Your task to perform on an android device: Open the calendar and show me this week's events? Image 0: 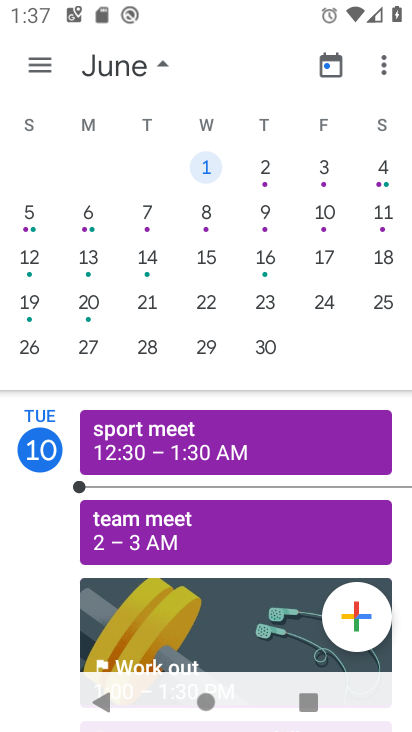
Step 0: press home button
Your task to perform on an android device: Open the calendar and show me this week's events? Image 1: 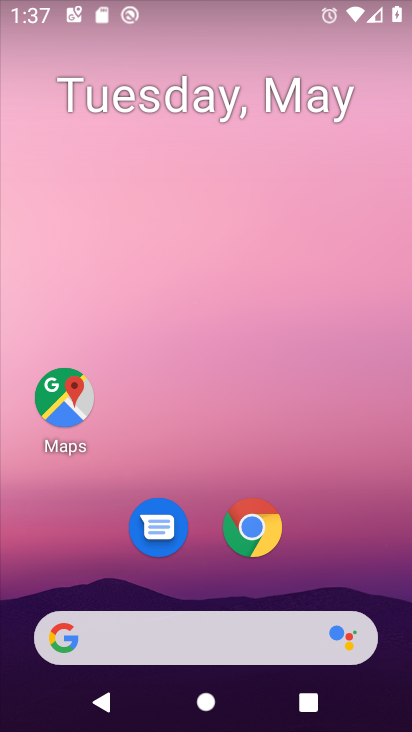
Step 1: drag from (246, 696) to (295, 6)
Your task to perform on an android device: Open the calendar and show me this week's events? Image 2: 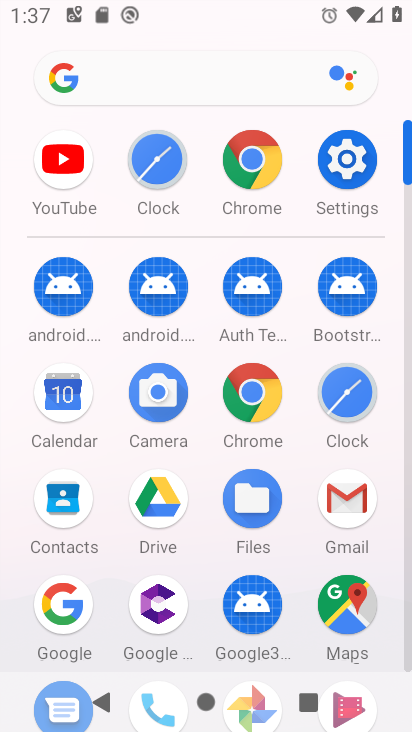
Step 2: click (74, 406)
Your task to perform on an android device: Open the calendar and show me this week's events? Image 3: 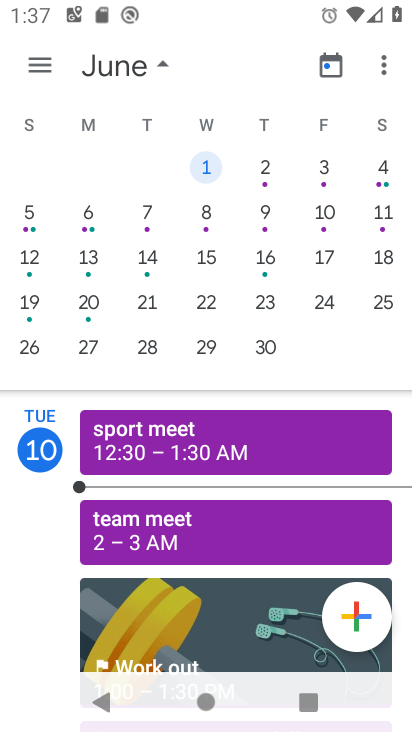
Step 3: task complete